Your task to perform on an android device: turn notification dots off Image 0: 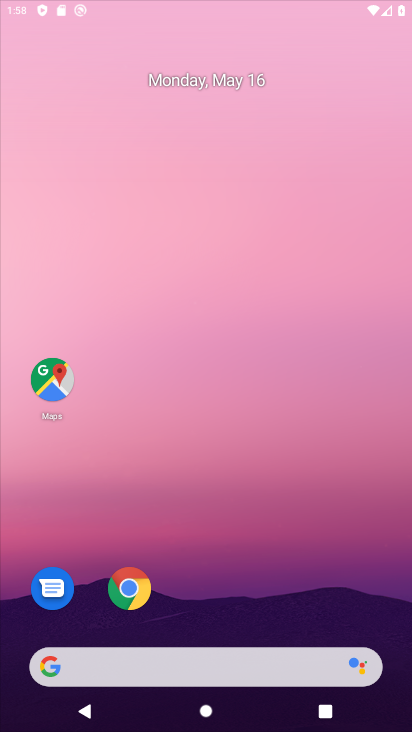
Step 0: click (214, 191)
Your task to perform on an android device: turn notification dots off Image 1: 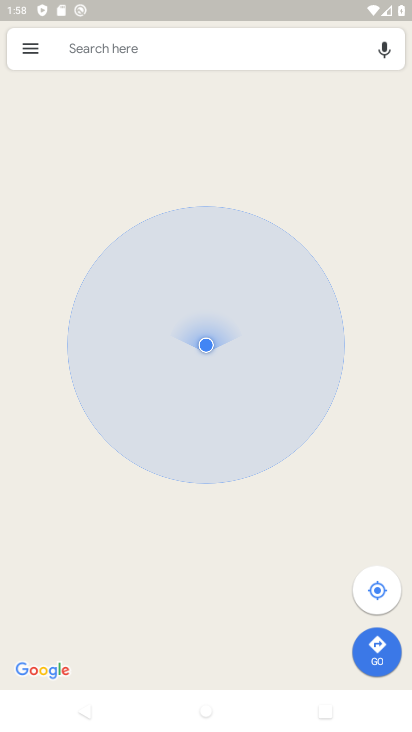
Step 1: press home button
Your task to perform on an android device: turn notification dots off Image 2: 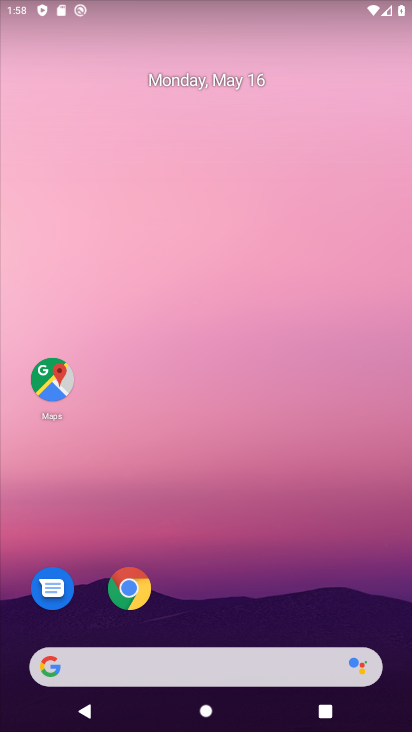
Step 2: drag from (222, 730) to (172, 151)
Your task to perform on an android device: turn notification dots off Image 3: 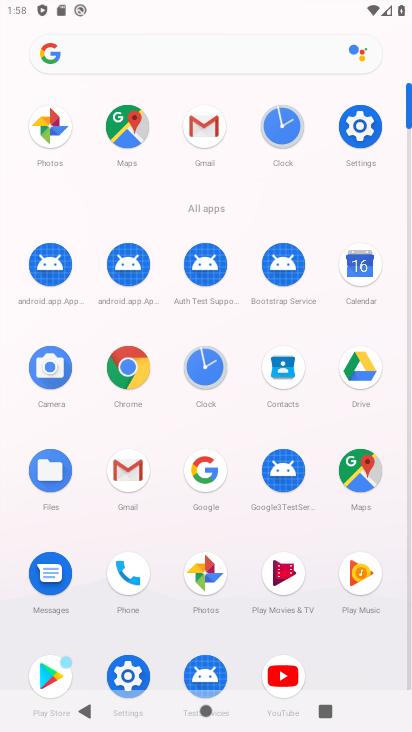
Step 3: click (355, 129)
Your task to perform on an android device: turn notification dots off Image 4: 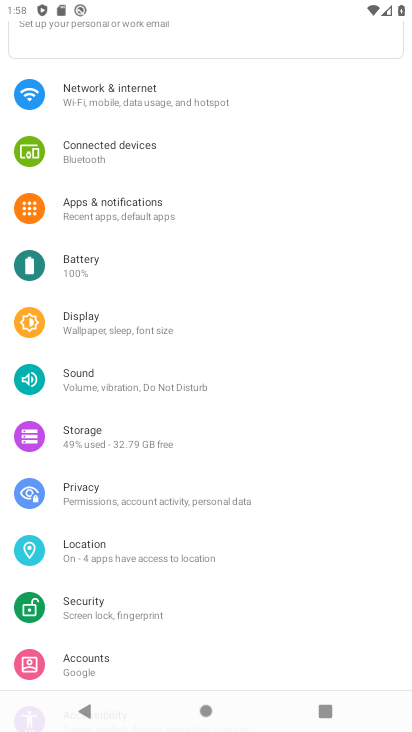
Step 4: click (115, 208)
Your task to perform on an android device: turn notification dots off Image 5: 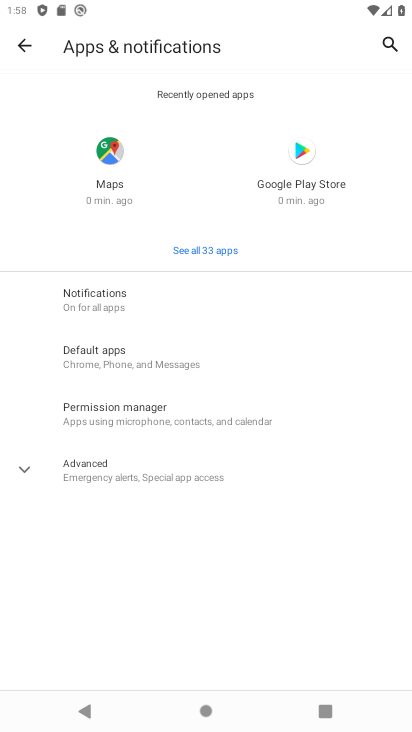
Step 5: click (102, 301)
Your task to perform on an android device: turn notification dots off Image 6: 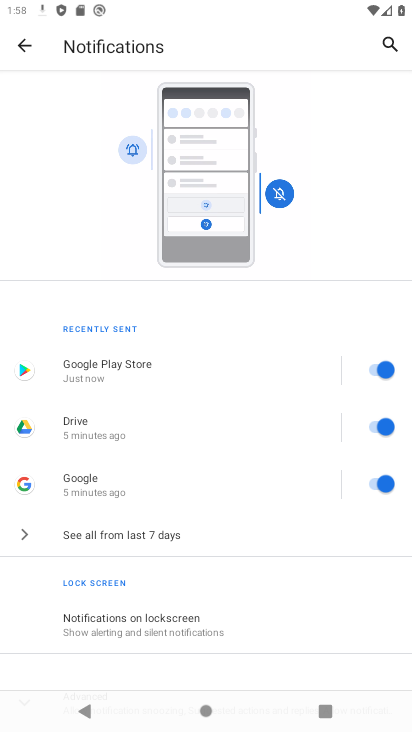
Step 6: drag from (212, 241) to (198, 608)
Your task to perform on an android device: turn notification dots off Image 7: 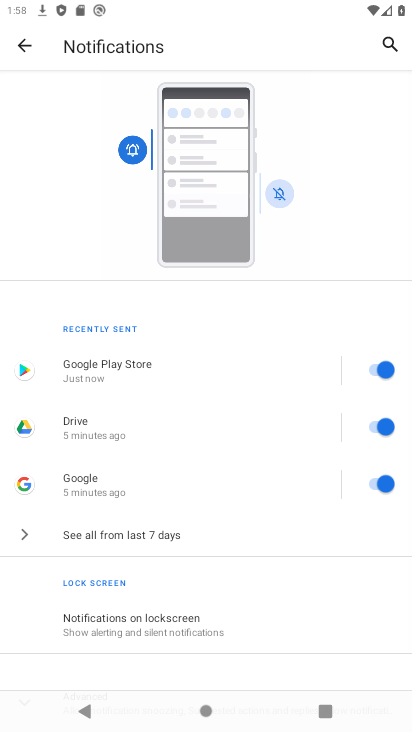
Step 7: drag from (143, 582) to (142, 310)
Your task to perform on an android device: turn notification dots off Image 8: 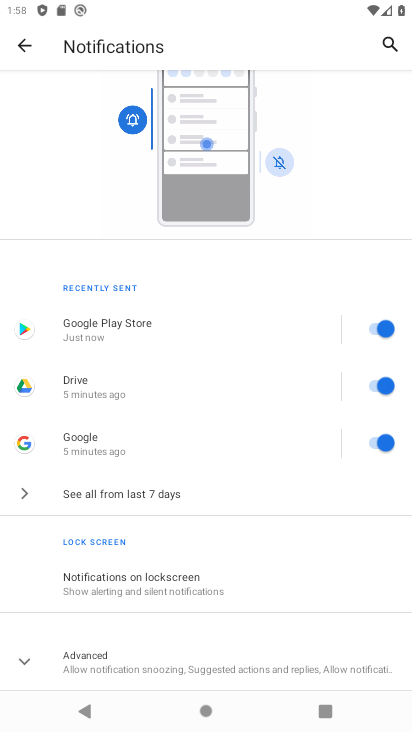
Step 8: click (117, 660)
Your task to perform on an android device: turn notification dots off Image 9: 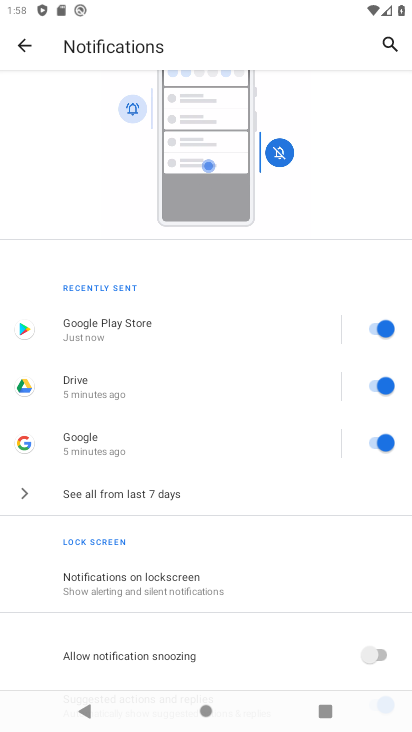
Step 9: drag from (144, 641) to (124, 312)
Your task to perform on an android device: turn notification dots off Image 10: 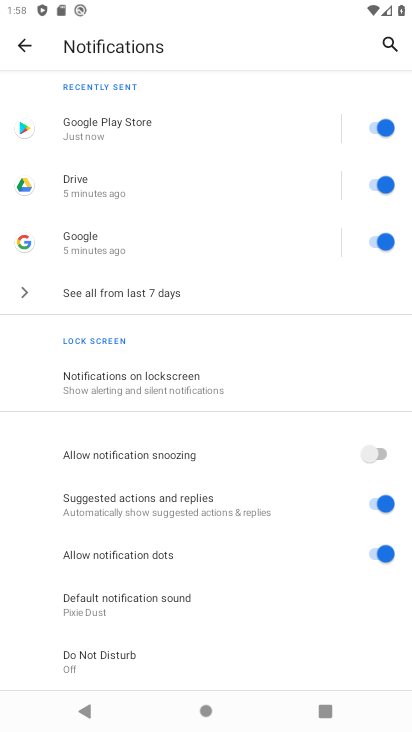
Step 10: click (370, 555)
Your task to perform on an android device: turn notification dots off Image 11: 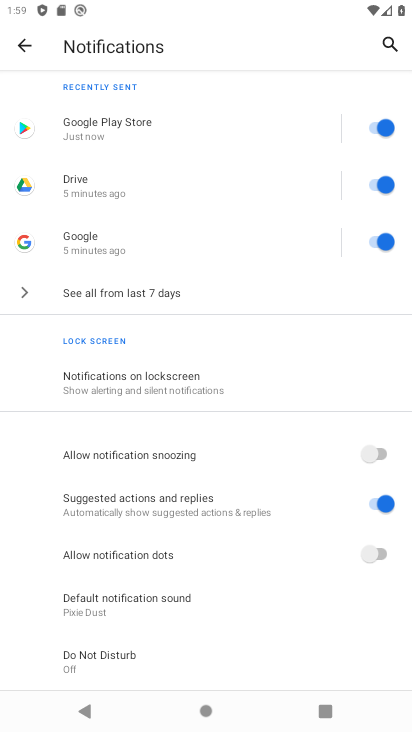
Step 11: task complete